Your task to perform on an android device: Go to ESPN.com Image 0: 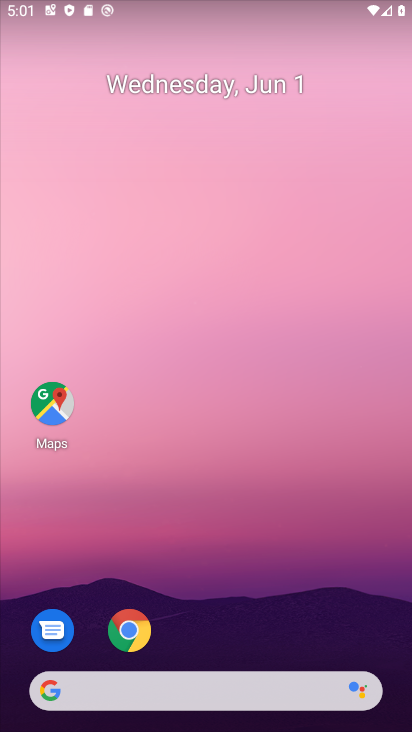
Step 0: click (131, 649)
Your task to perform on an android device: Go to ESPN.com Image 1: 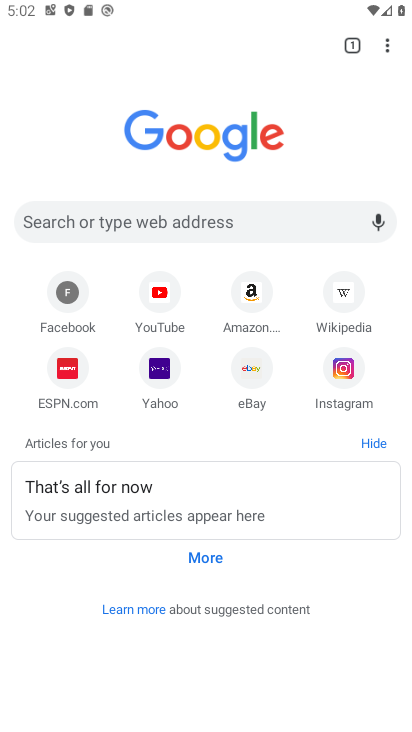
Step 1: click (73, 383)
Your task to perform on an android device: Go to ESPN.com Image 2: 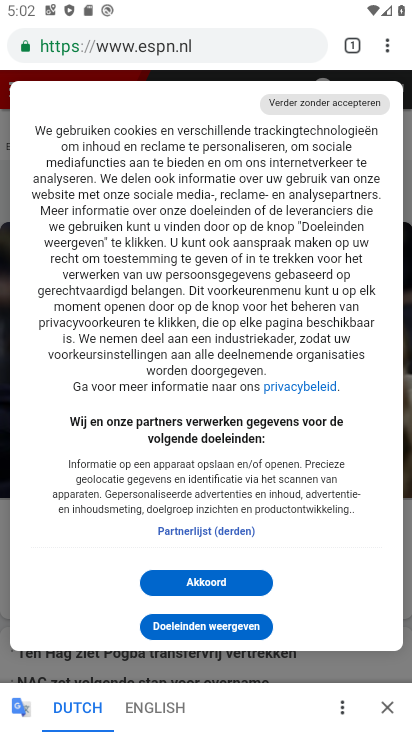
Step 2: click (233, 584)
Your task to perform on an android device: Go to ESPN.com Image 3: 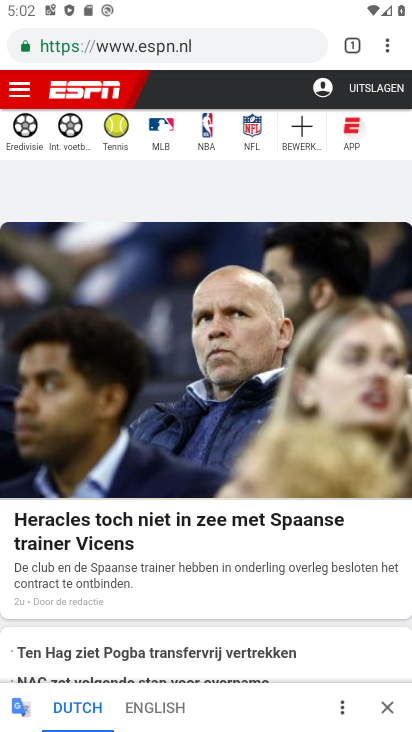
Step 3: task complete